Your task to perform on an android device: Open the calendar Image 0: 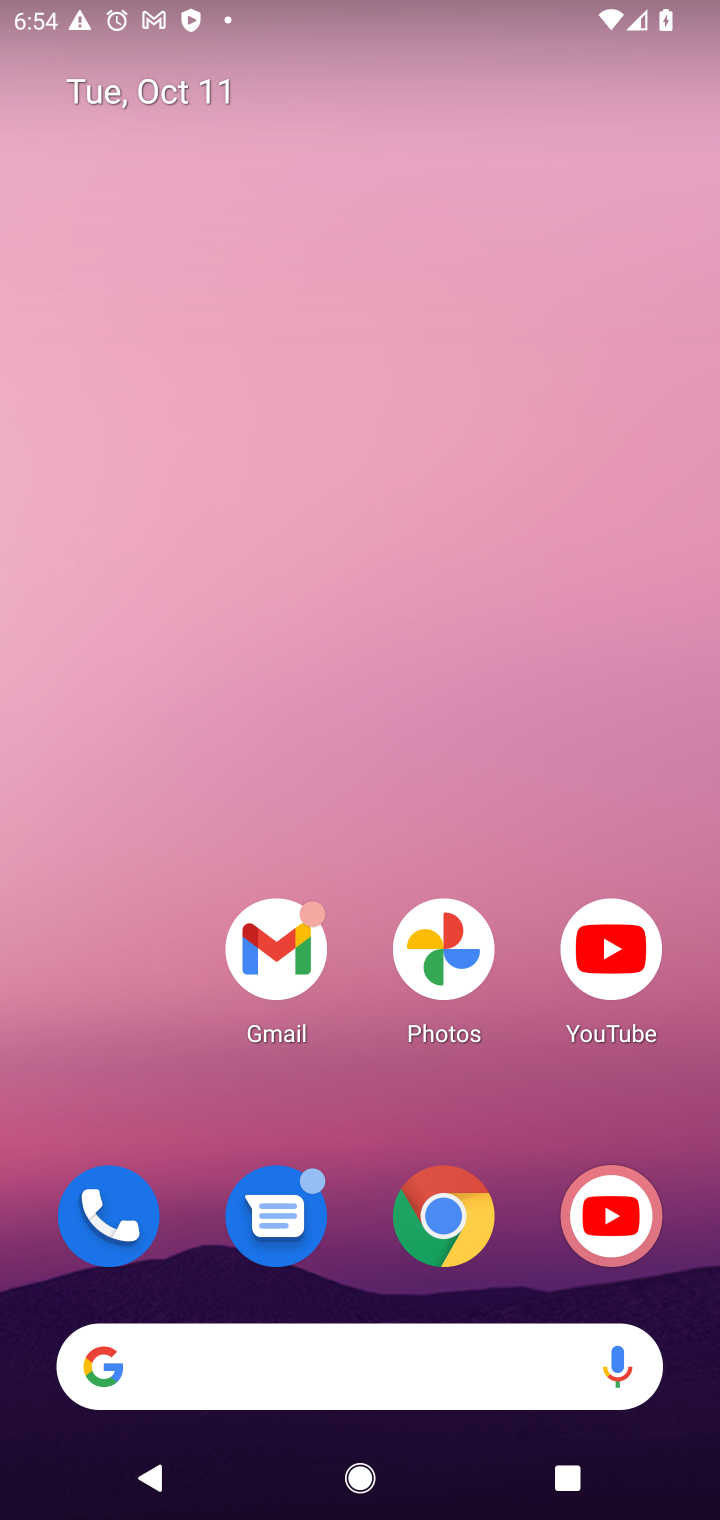
Step 0: drag from (376, 948) to (413, 189)
Your task to perform on an android device: Open the calendar Image 1: 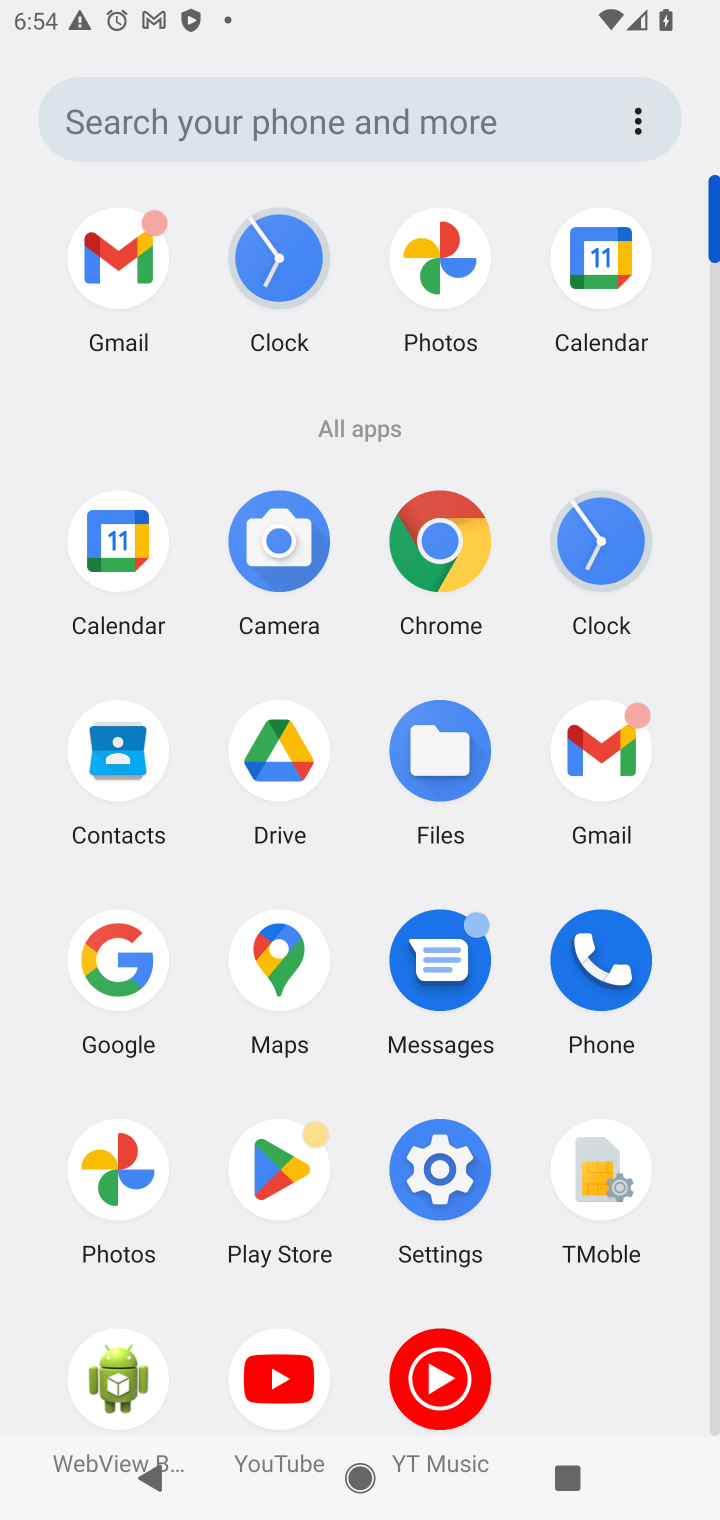
Step 1: click (156, 586)
Your task to perform on an android device: Open the calendar Image 2: 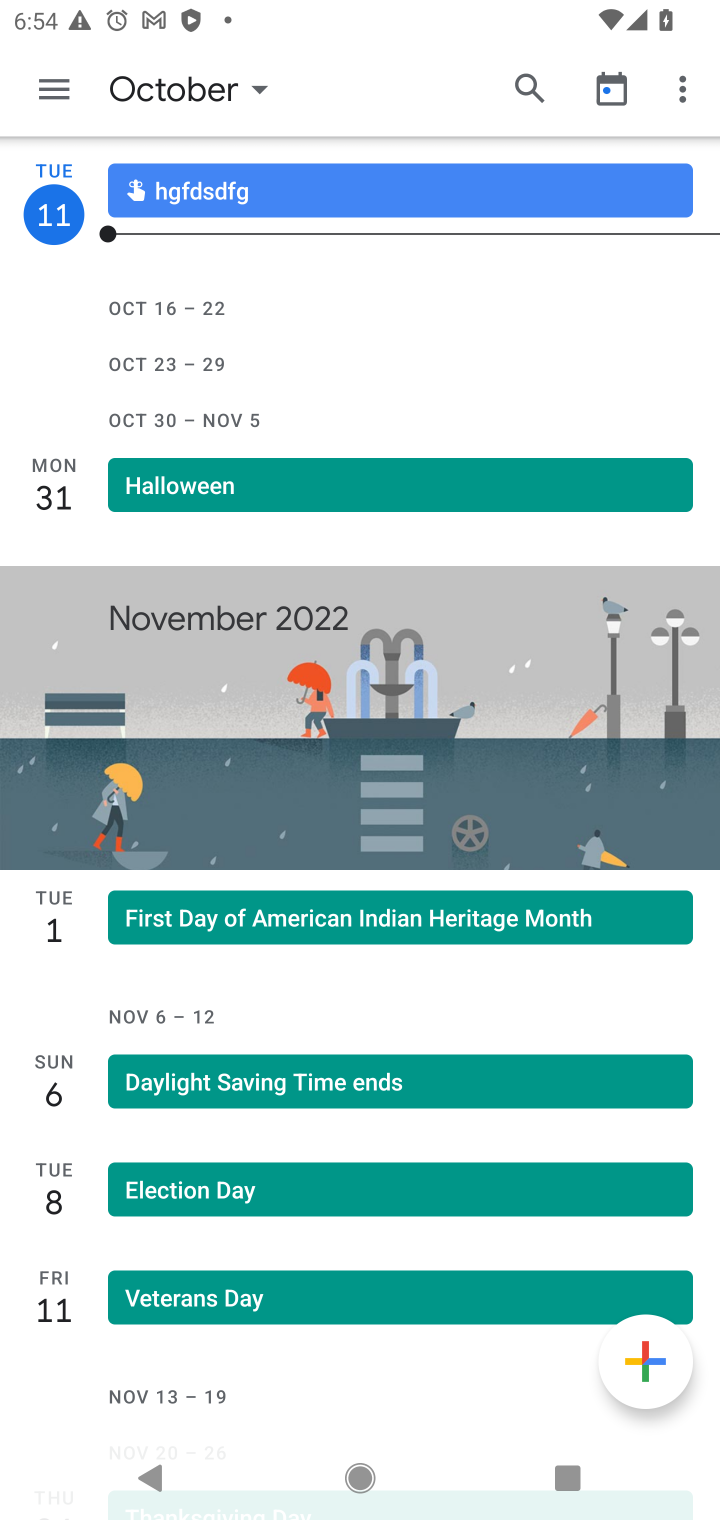
Step 2: task complete